Your task to perform on an android device: Play the last video I watched on Youtube Image 0: 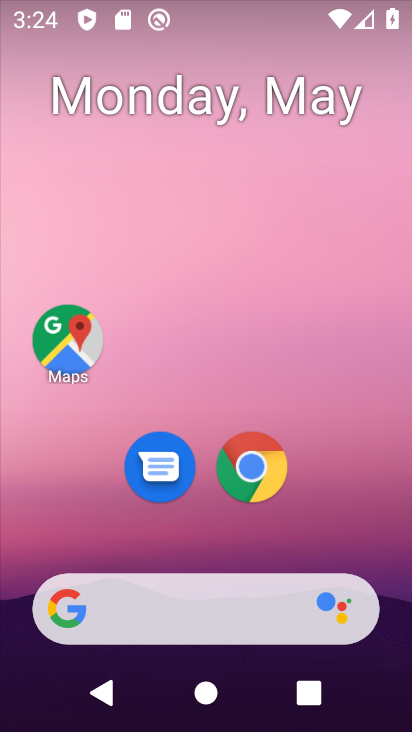
Step 0: drag from (90, 557) to (204, 63)
Your task to perform on an android device: Play the last video I watched on Youtube Image 1: 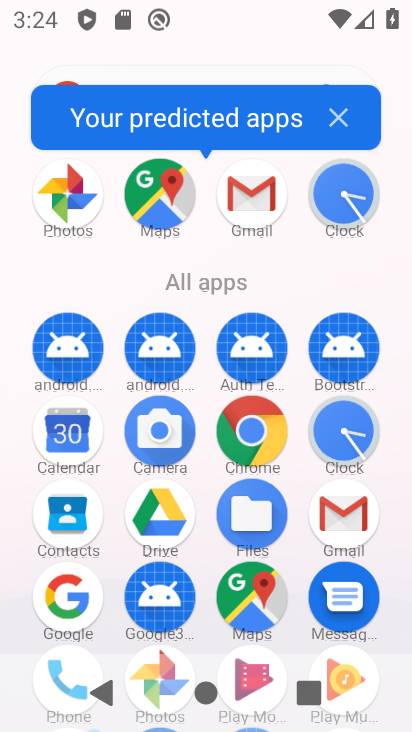
Step 1: drag from (213, 606) to (285, 280)
Your task to perform on an android device: Play the last video I watched on Youtube Image 2: 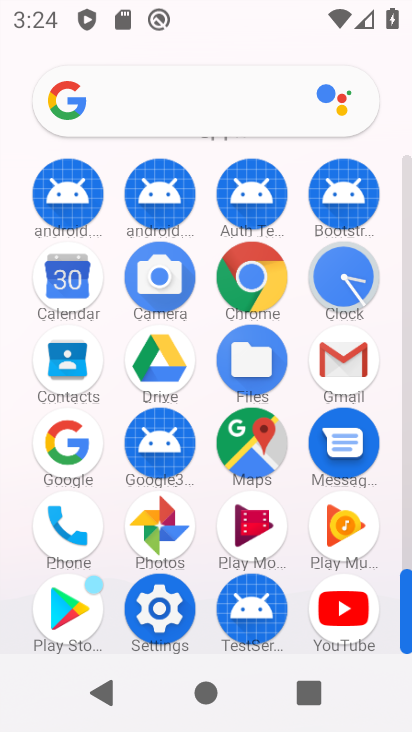
Step 2: click (331, 610)
Your task to perform on an android device: Play the last video I watched on Youtube Image 3: 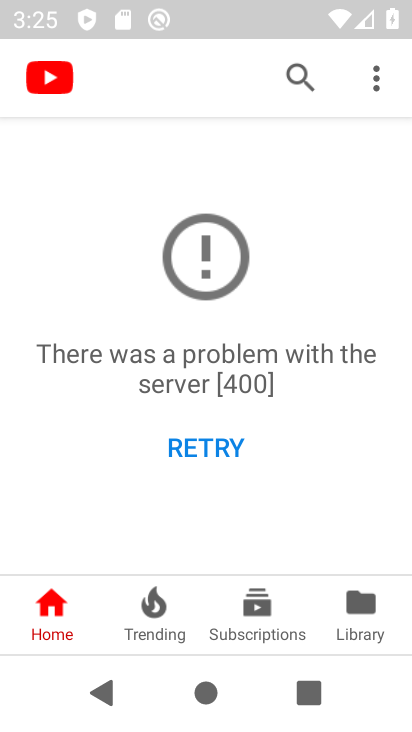
Step 3: click (372, 619)
Your task to perform on an android device: Play the last video I watched on Youtube Image 4: 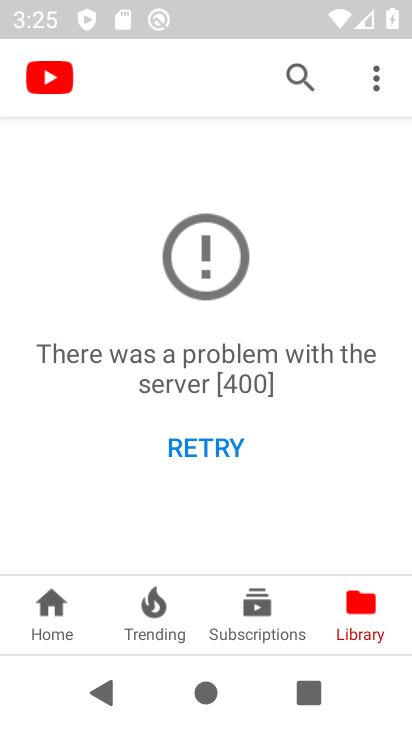
Step 4: click (372, 620)
Your task to perform on an android device: Play the last video I watched on Youtube Image 5: 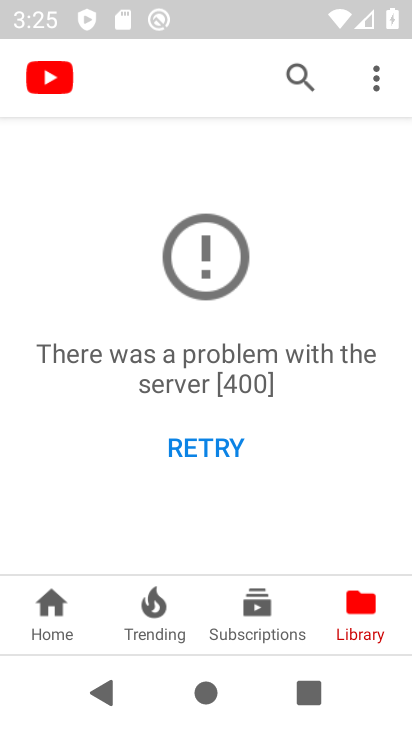
Step 5: task complete